Your task to perform on an android device: change text size in settings app Image 0: 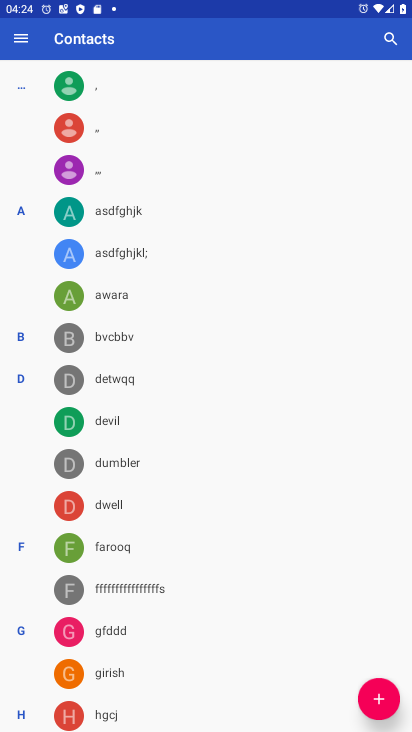
Step 0: press home button
Your task to perform on an android device: change text size in settings app Image 1: 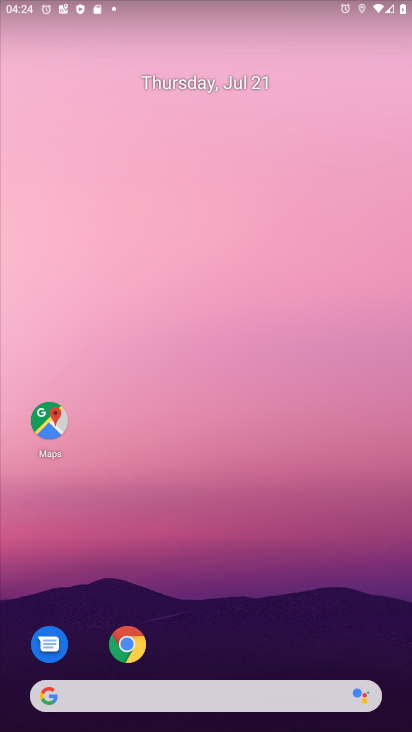
Step 1: drag from (262, 674) to (300, 83)
Your task to perform on an android device: change text size in settings app Image 2: 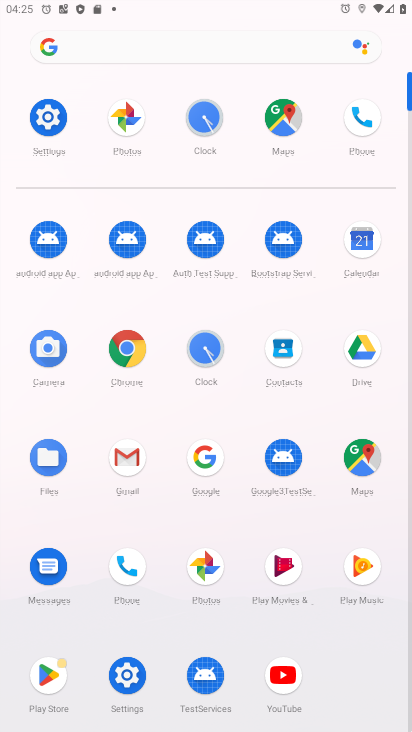
Step 2: click (46, 114)
Your task to perform on an android device: change text size in settings app Image 3: 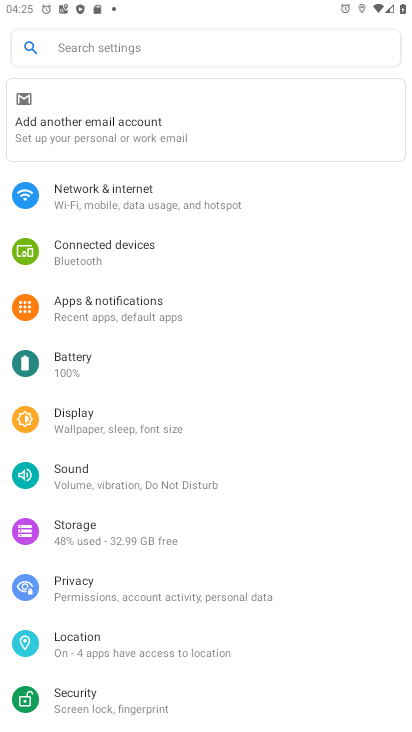
Step 3: drag from (346, 631) to (329, 371)
Your task to perform on an android device: change text size in settings app Image 4: 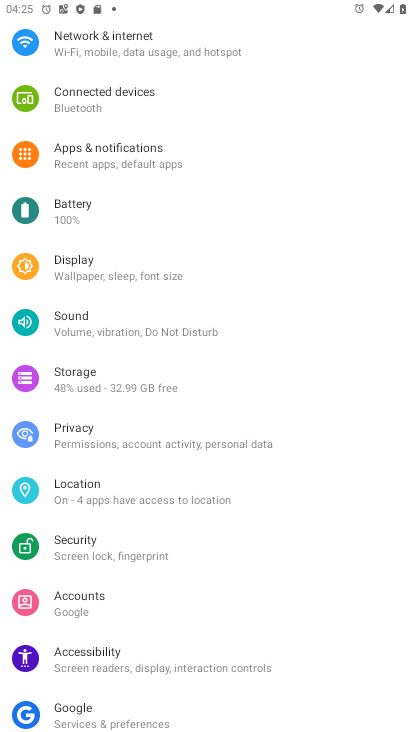
Step 4: click (99, 656)
Your task to perform on an android device: change text size in settings app Image 5: 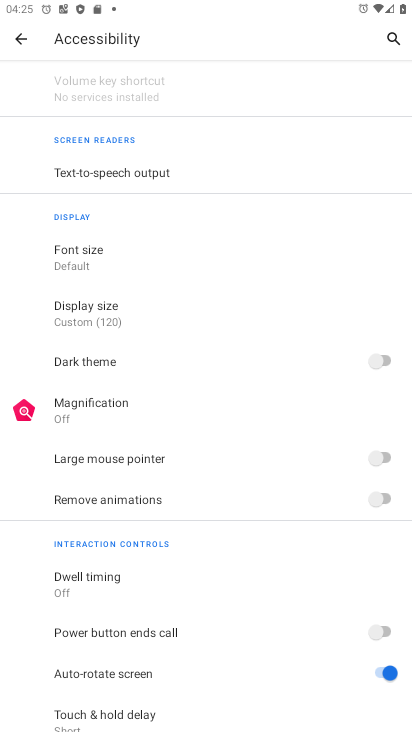
Step 5: click (67, 253)
Your task to perform on an android device: change text size in settings app Image 6: 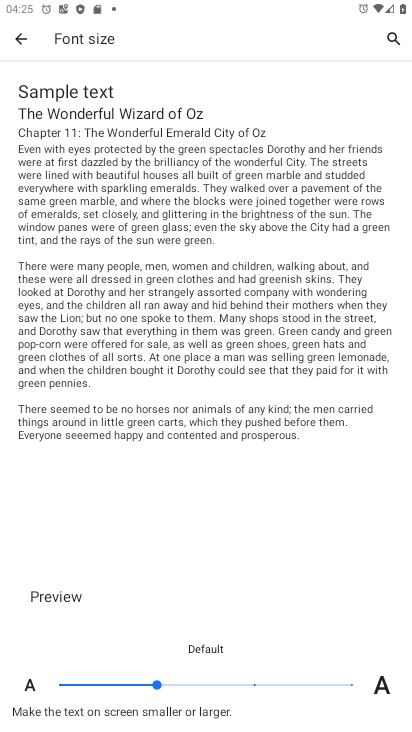
Step 6: click (254, 689)
Your task to perform on an android device: change text size in settings app Image 7: 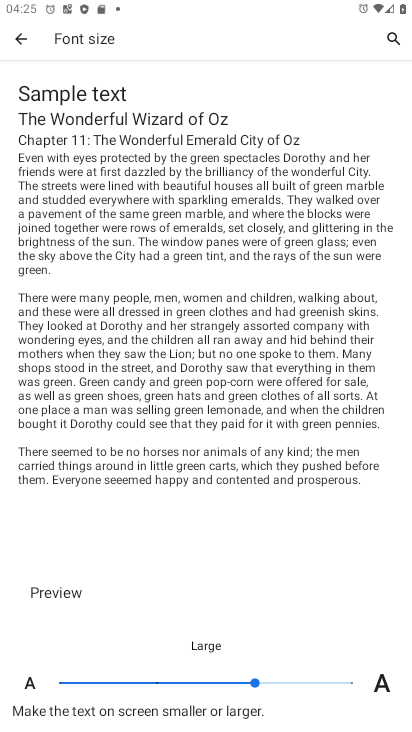
Step 7: task complete